Your task to perform on an android device: turn on priority inbox in the gmail app Image 0: 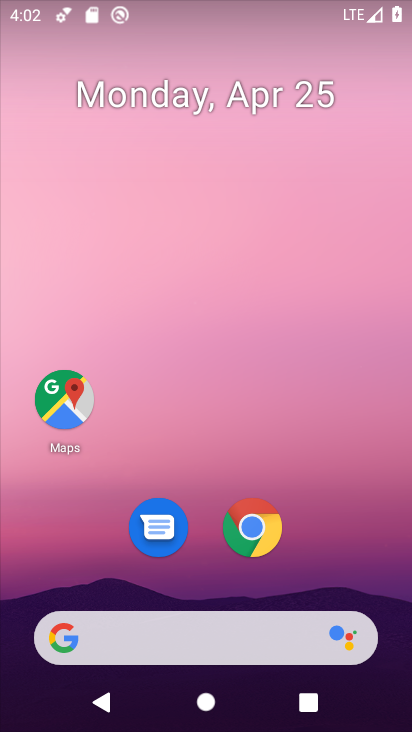
Step 0: drag from (393, 621) to (339, 135)
Your task to perform on an android device: turn on priority inbox in the gmail app Image 1: 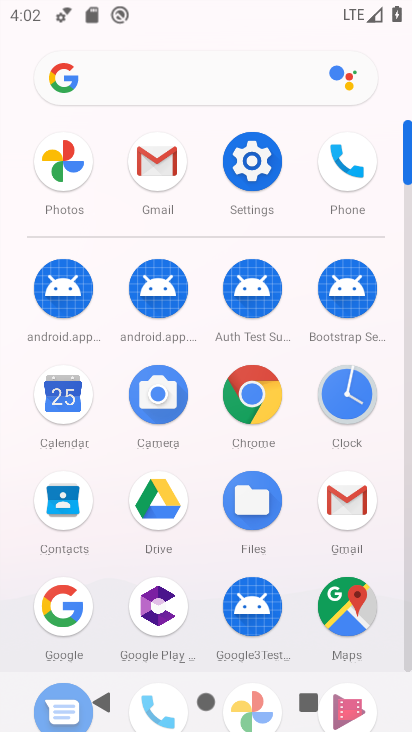
Step 1: click (407, 643)
Your task to perform on an android device: turn on priority inbox in the gmail app Image 2: 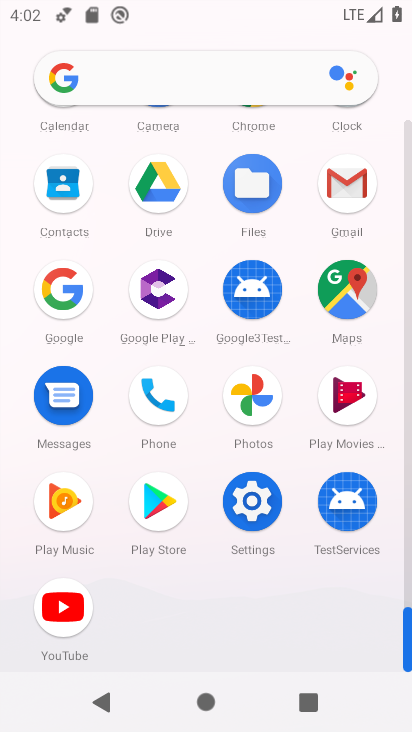
Step 2: click (345, 187)
Your task to perform on an android device: turn on priority inbox in the gmail app Image 3: 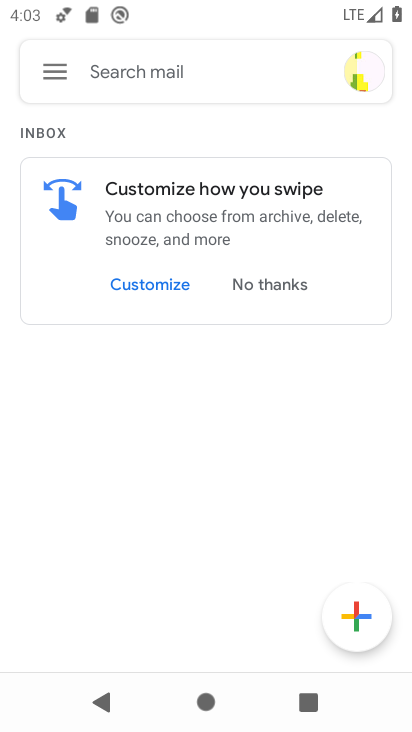
Step 3: click (55, 64)
Your task to perform on an android device: turn on priority inbox in the gmail app Image 4: 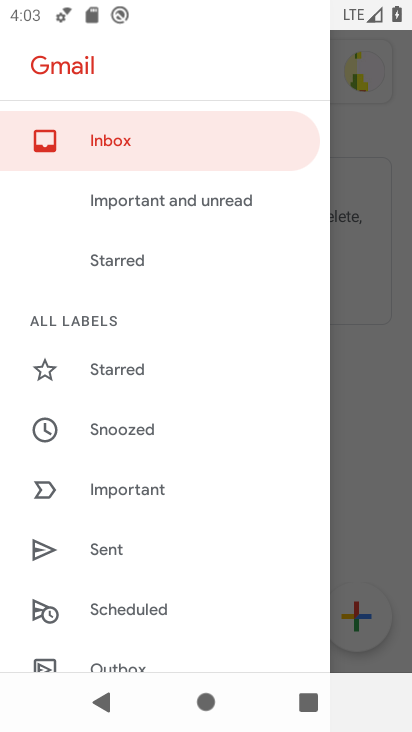
Step 4: drag from (225, 609) to (226, 273)
Your task to perform on an android device: turn on priority inbox in the gmail app Image 5: 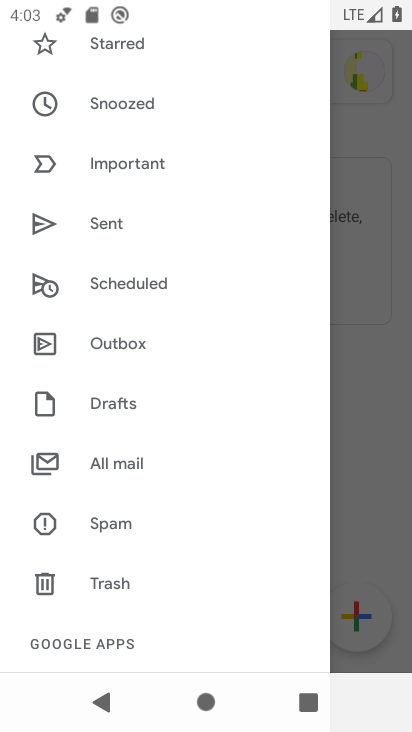
Step 5: drag from (186, 628) to (208, 284)
Your task to perform on an android device: turn on priority inbox in the gmail app Image 6: 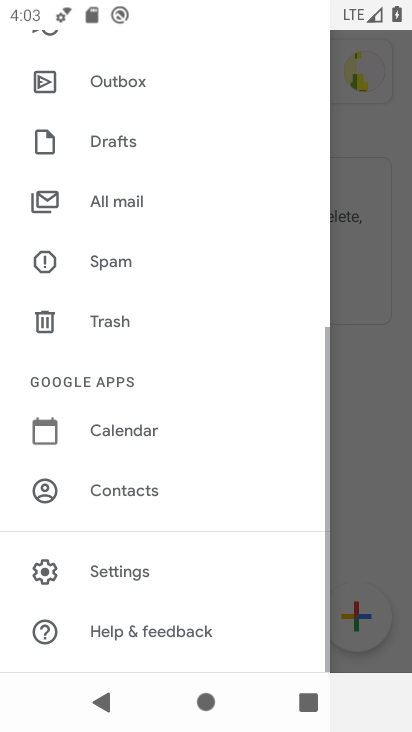
Step 6: click (110, 573)
Your task to perform on an android device: turn on priority inbox in the gmail app Image 7: 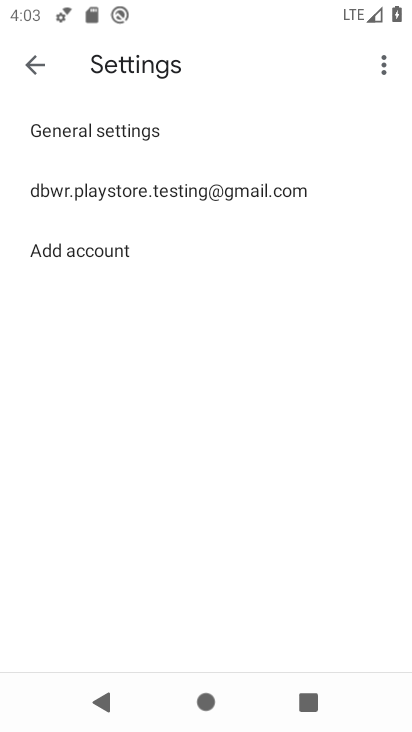
Step 7: click (153, 194)
Your task to perform on an android device: turn on priority inbox in the gmail app Image 8: 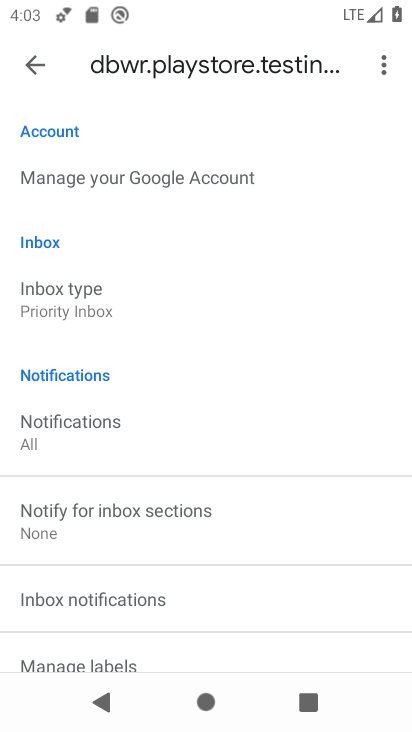
Step 8: drag from (259, 598) to (251, 563)
Your task to perform on an android device: turn on priority inbox in the gmail app Image 9: 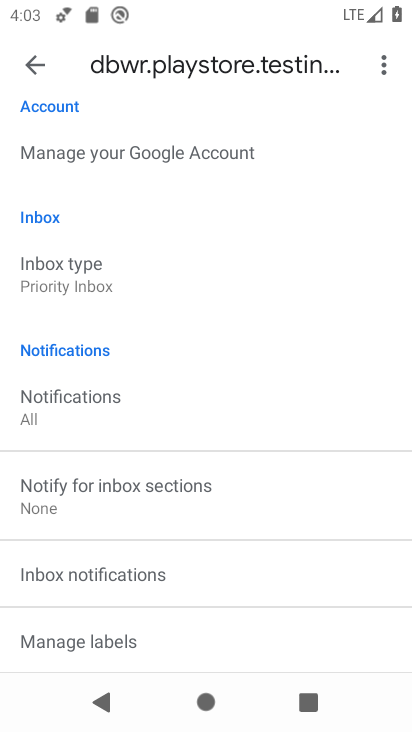
Step 9: drag from (298, 227) to (254, 424)
Your task to perform on an android device: turn on priority inbox in the gmail app Image 10: 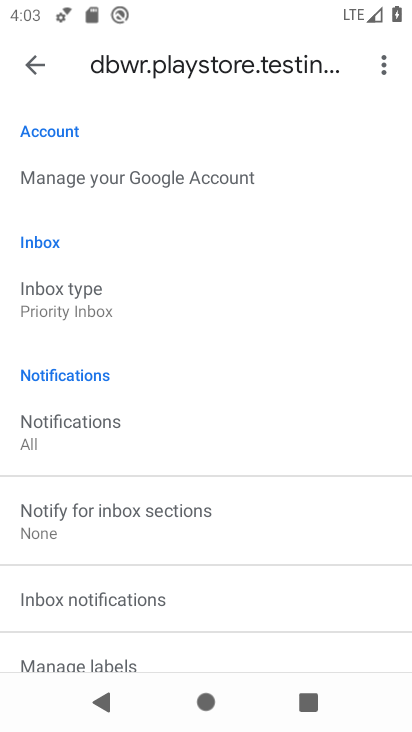
Step 10: click (71, 297)
Your task to perform on an android device: turn on priority inbox in the gmail app Image 11: 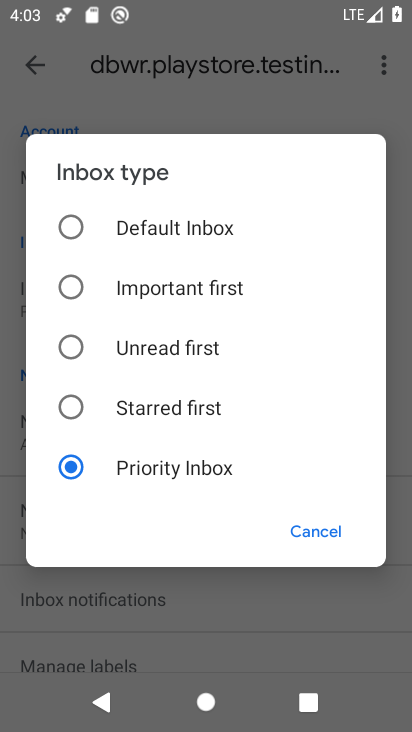
Step 11: task complete